Your task to perform on an android device: delete location history Image 0: 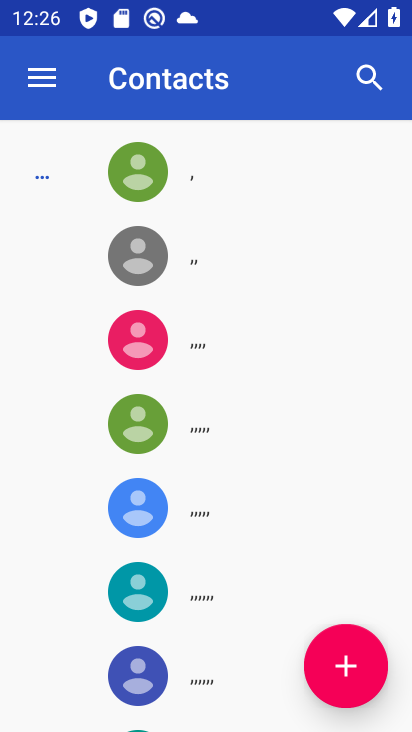
Step 0: press home button
Your task to perform on an android device: delete location history Image 1: 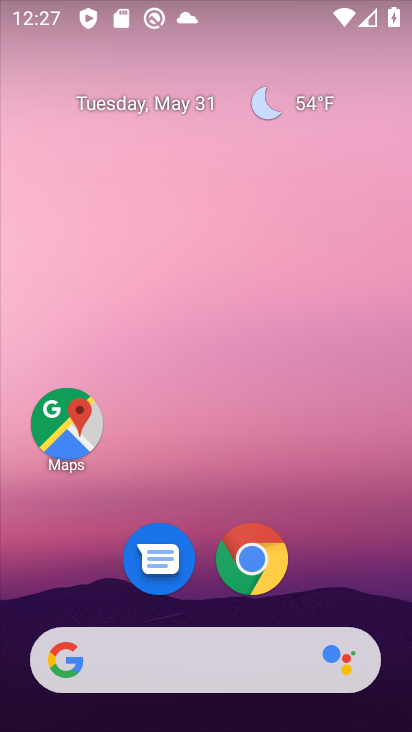
Step 1: drag from (168, 699) to (97, 90)
Your task to perform on an android device: delete location history Image 2: 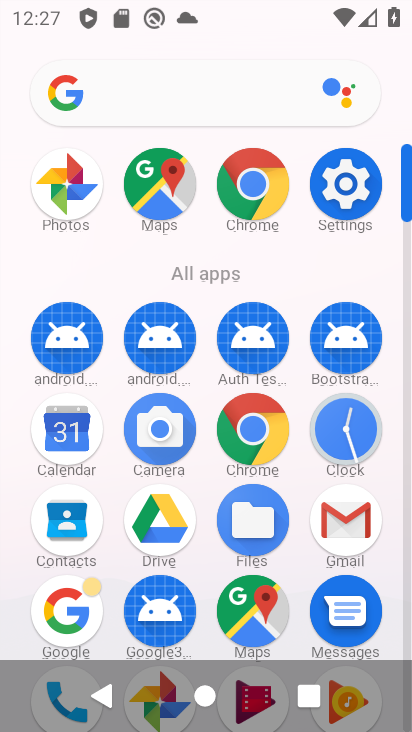
Step 2: click (339, 198)
Your task to perform on an android device: delete location history Image 3: 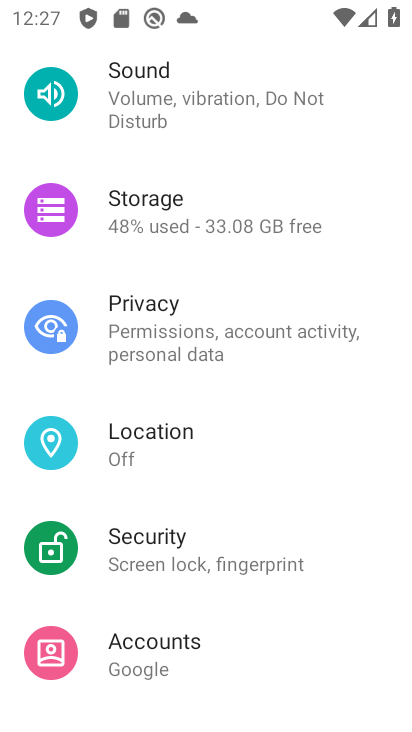
Step 3: click (151, 453)
Your task to perform on an android device: delete location history Image 4: 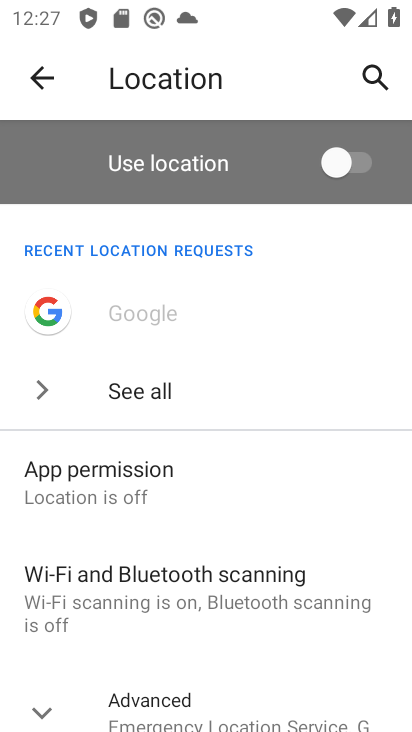
Step 4: click (180, 705)
Your task to perform on an android device: delete location history Image 5: 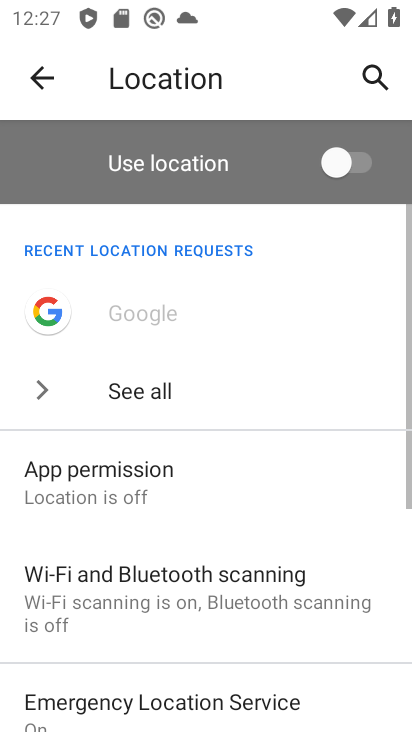
Step 5: drag from (260, 588) to (217, 314)
Your task to perform on an android device: delete location history Image 6: 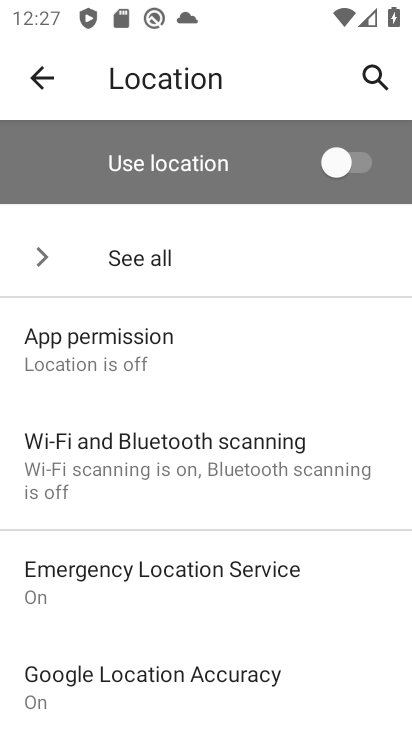
Step 6: drag from (285, 512) to (276, 424)
Your task to perform on an android device: delete location history Image 7: 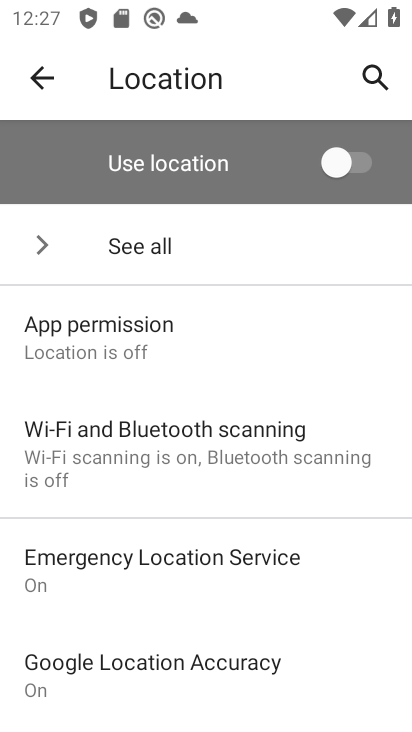
Step 7: drag from (284, 616) to (266, 367)
Your task to perform on an android device: delete location history Image 8: 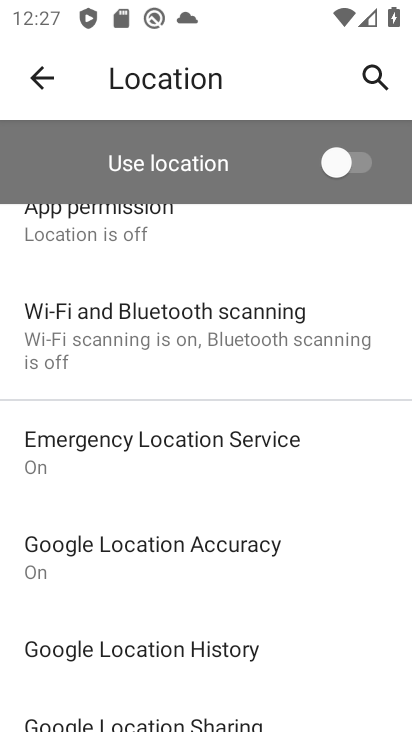
Step 8: click (222, 663)
Your task to perform on an android device: delete location history Image 9: 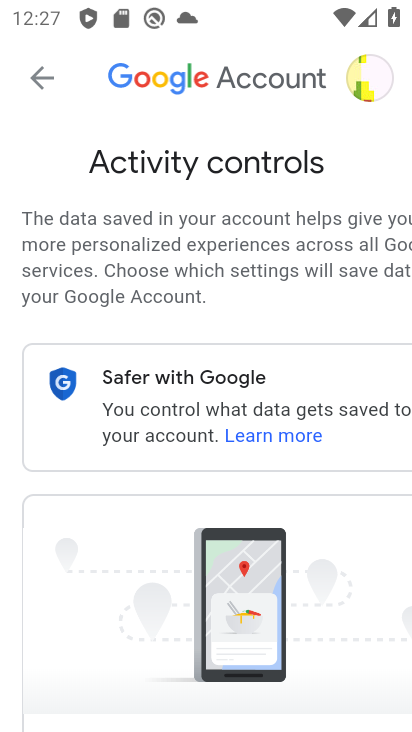
Step 9: drag from (337, 602) to (296, 197)
Your task to perform on an android device: delete location history Image 10: 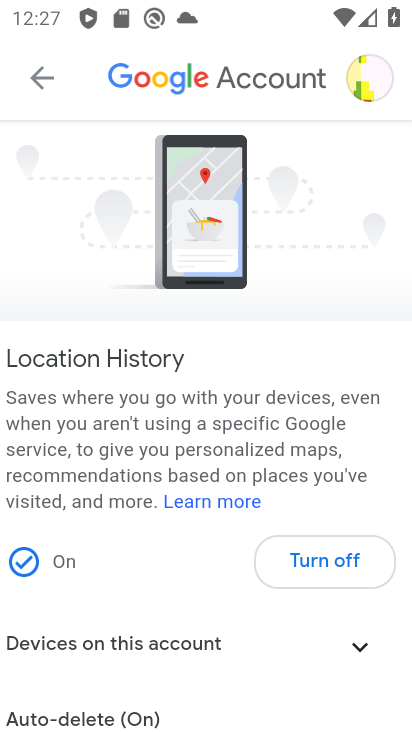
Step 10: drag from (228, 687) to (200, 399)
Your task to perform on an android device: delete location history Image 11: 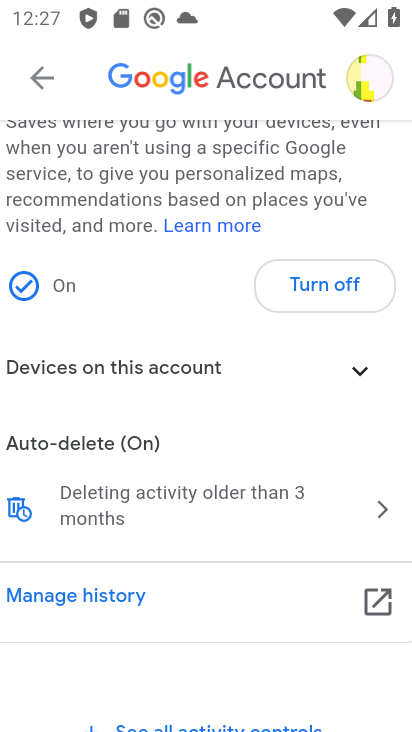
Step 11: click (163, 517)
Your task to perform on an android device: delete location history Image 12: 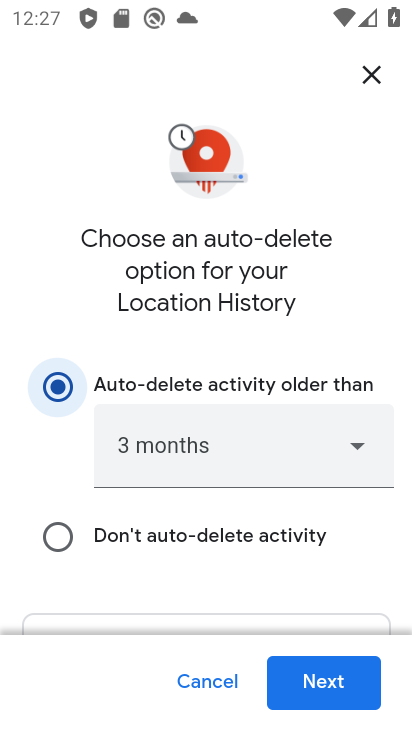
Step 12: click (347, 454)
Your task to perform on an android device: delete location history Image 13: 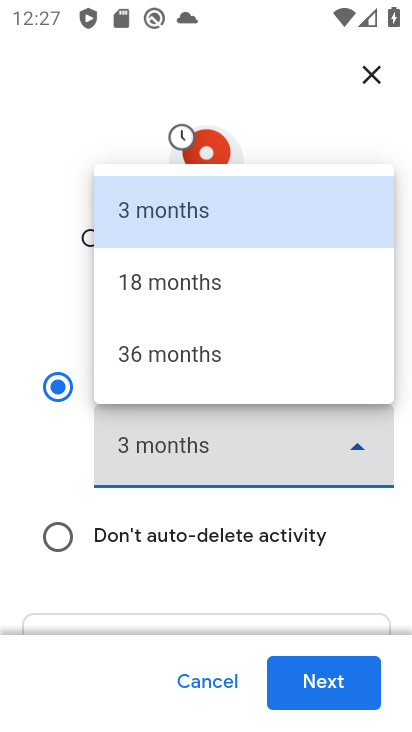
Step 13: click (227, 219)
Your task to perform on an android device: delete location history Image 14: 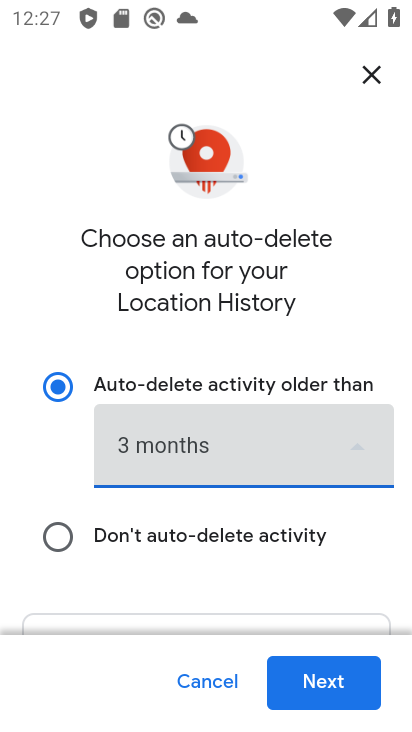
Step 14: click (342, 690)
Your task to perform on an android device: delete location history Image 15: 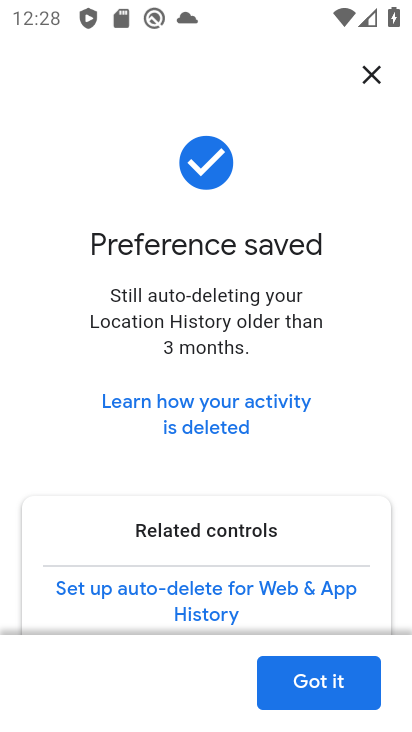
Step 15: click (355, 691)
Your task to perform on an android device: delete location history Image 16: 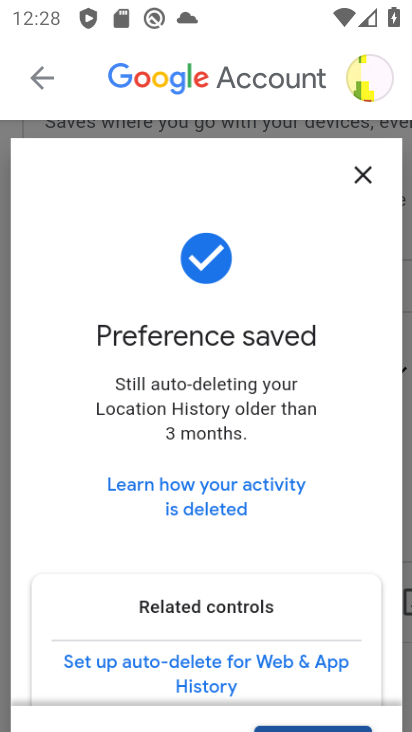
Step 16: task complete